Your task to perform on an android device: Open the web browser Image 0: 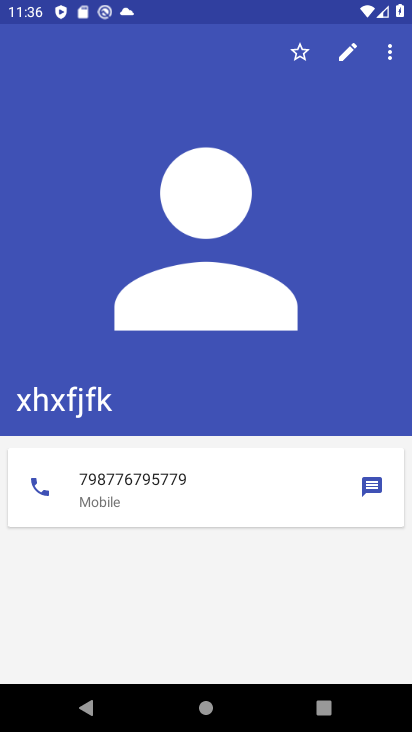
Step 0: press home button
Your task to perform on an android device: Open the web browser Image 1: 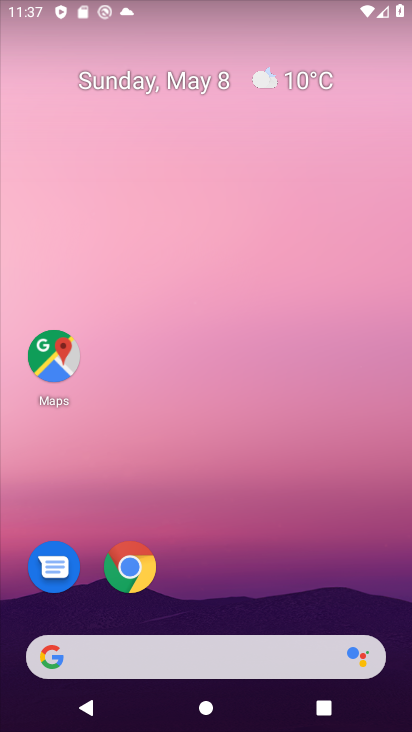
Step 1: drag from (239, 696) to (180, 87)
Your task to perform on an android device: Open the web browser Image 2: 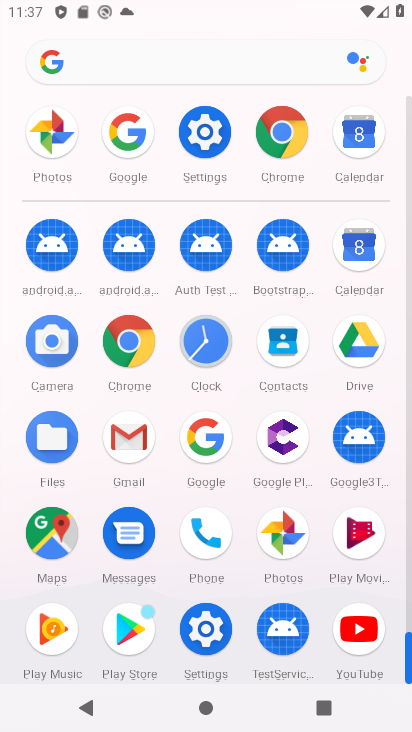
Step 2: click (288, 162)
Your task to perform on an android device: Open the web browser Image 3: 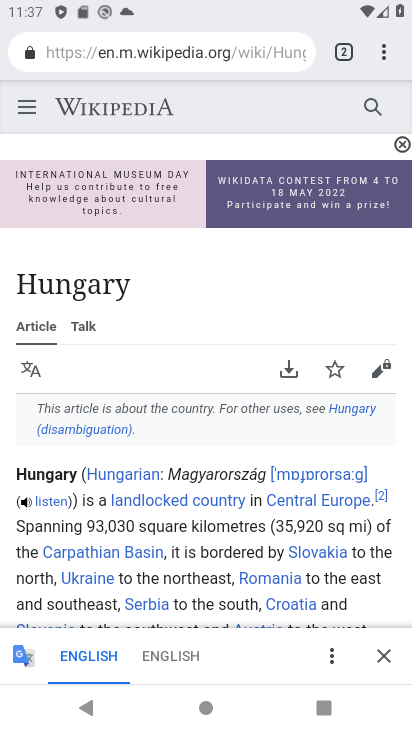
Step 3: task complete